Your task to perform on an android device: open a new tab in the chrome app Image 0: 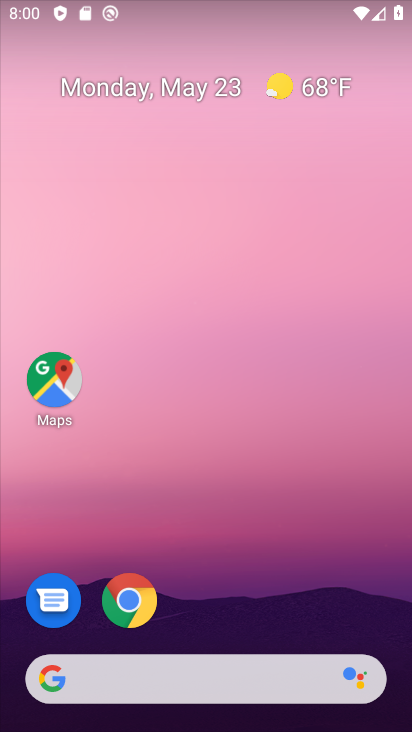
Step 0: click (129, 591)
Your task to perform on an android device: open a new tab in the chrome app Image 1: 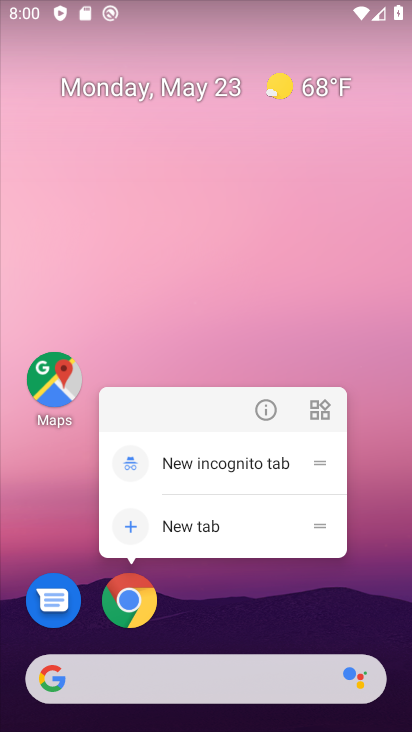
Step 1: click (123, 598)
Your task to perform on an android device: open a new tab in the chrome app Image 2: 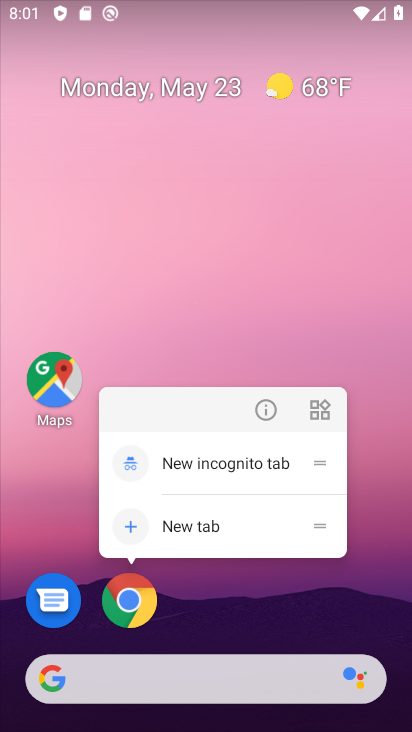
Step 2: click (113, 601)
Your task to perform on an android device: open a new tab in the chrome app Image 3: 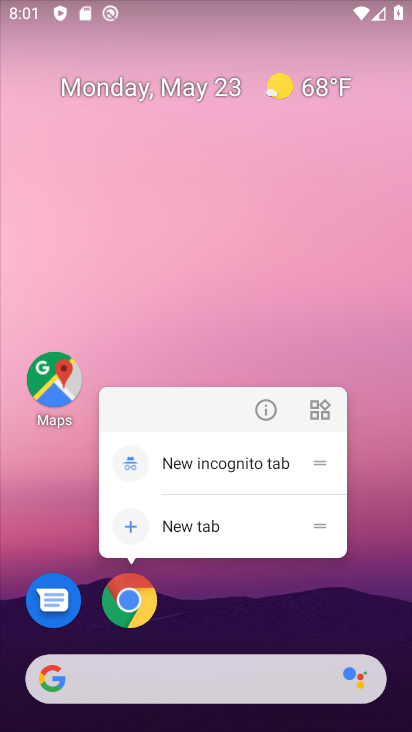
Step 3: click (131, 600)
Your task to perform on an android device: open a new tab in the chrome app Image 4: 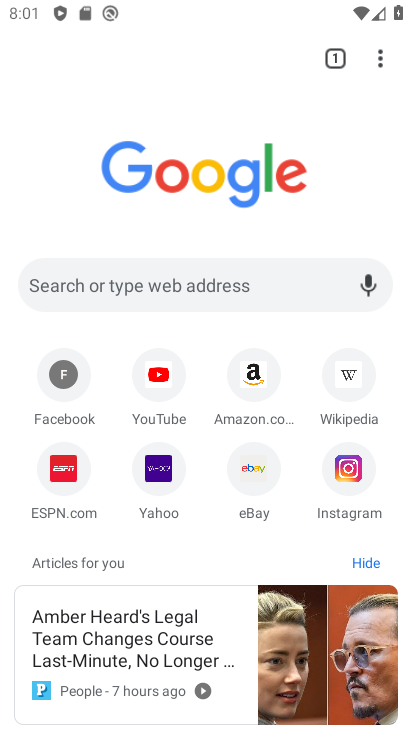
Step 4: click (328, 63)
Your task to perform on an android device: open a new tab in the chrome app Image 5: 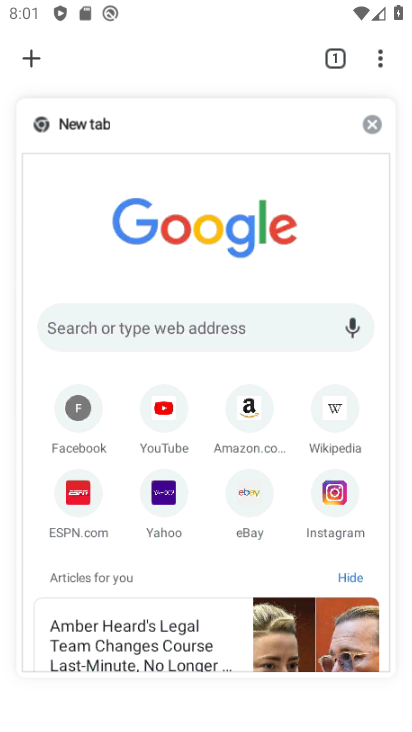
Step 5: click (30, 60)
Your task to perform on an android device: open a new tab in the chrome app Image 6: 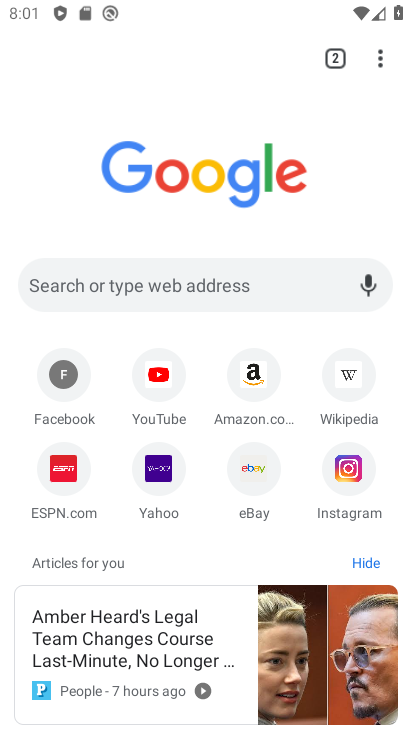
Step 6: task complete